Your task to perform on an android device: see creations saved in the google photos Image 0: 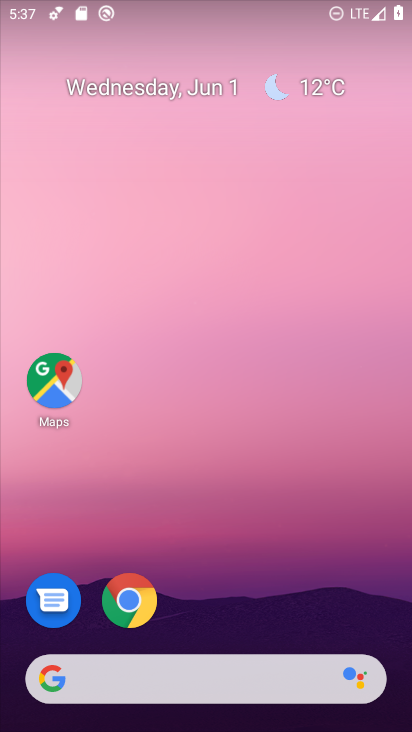
Step 0: drag from (346, 613) to (305, 90)
Your task to perform on an android device: see creations saved in the google photos Image 1: 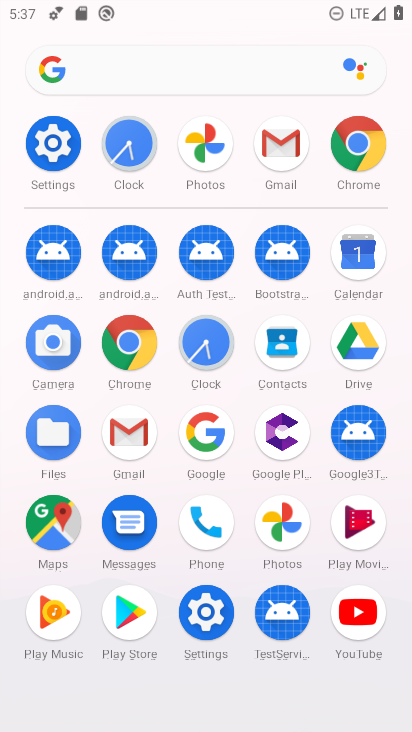
Step 1: click (285, 519)
Your task to perform on an android device: see creations saved in the google photos Image 2: 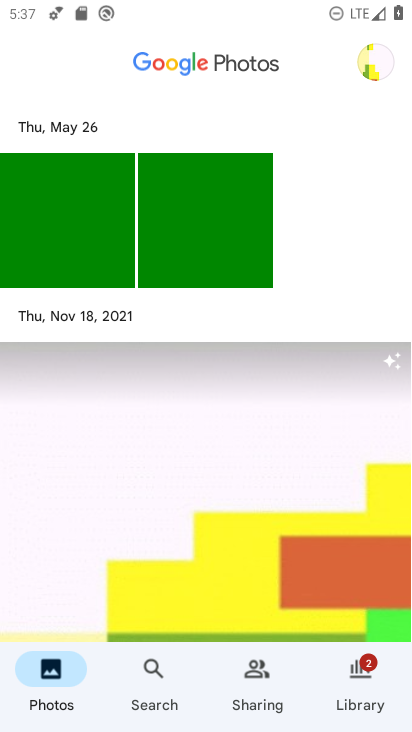
Step 2: task complete